Your task to perform on an android device: Search for a new eyeshadow Image 0: 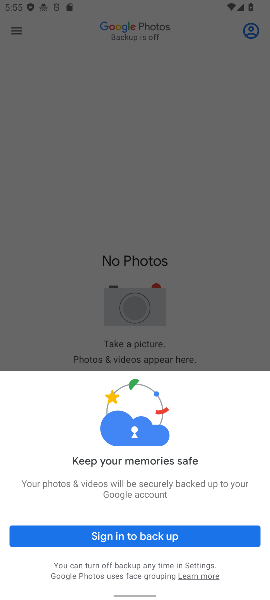
Step 0: press home button
Your task to perform on an android device: Search for a new eyeshadow Image 1: 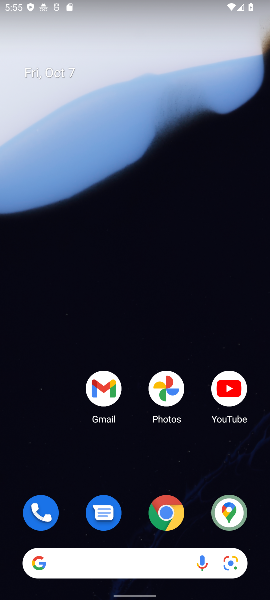
Step 1: click (121, 561)
Your task to perform on an android device: Search for a new eyeshadow Image 2: 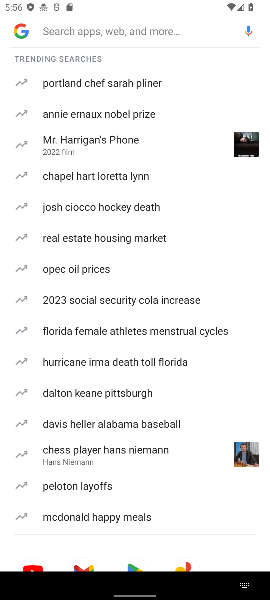
Step 2: type "new eyeshadow"
Your task to perform on an android device: Search for a new eyeshadow Image 3: 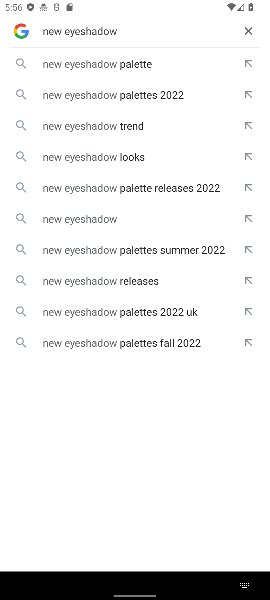
Step 3: click (86, 214)
Your task to perform on an android device: Search for a new eyeshadow Image 4: 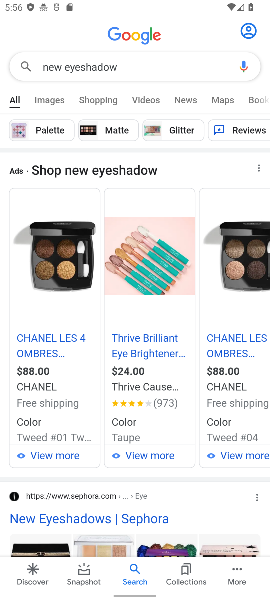
Step 4: task complete